Your task to perform on an android device: Open settings on Google Maps Image 0: 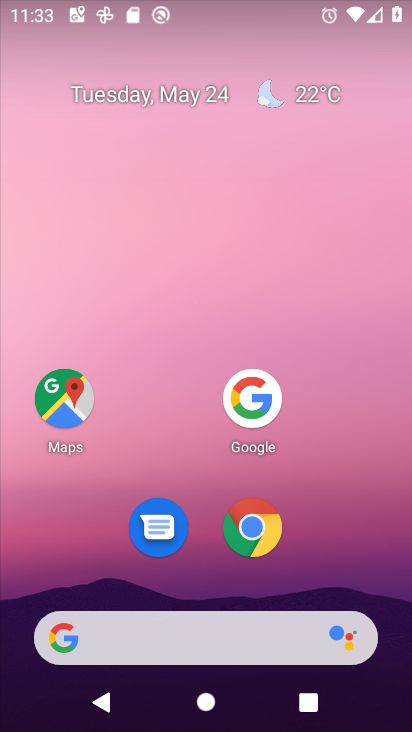
Step 0: press home button
Your task to perform on an android device: Open settings on Google Maps Image 1: 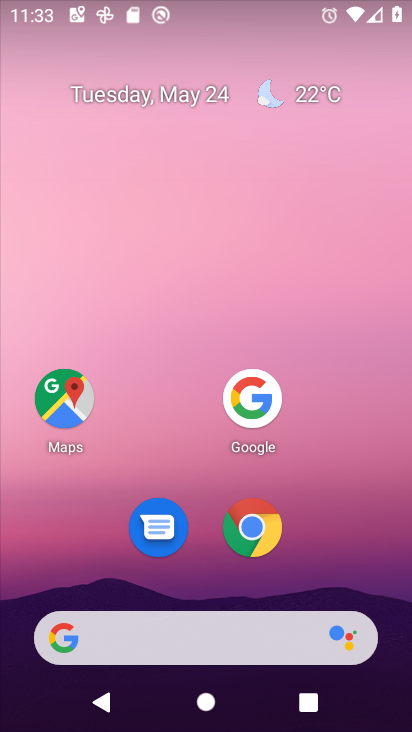
Step 1: click (200, 640)
Your task to perform on an android device: Open settings on Google Maps Image 2: 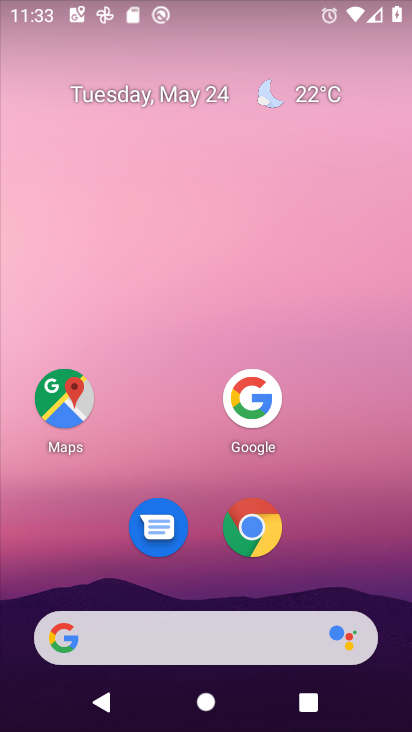
Step 2: click (66, 408)
Your task to perform on an android device: Open settings on Google Maps Image 3: 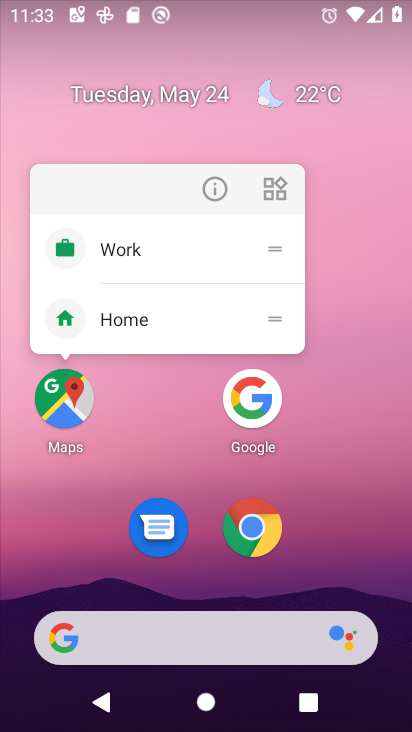
Step 3: click (66, 408)
Your task to perform on an android device: Open settings on Google Maps Image 4: 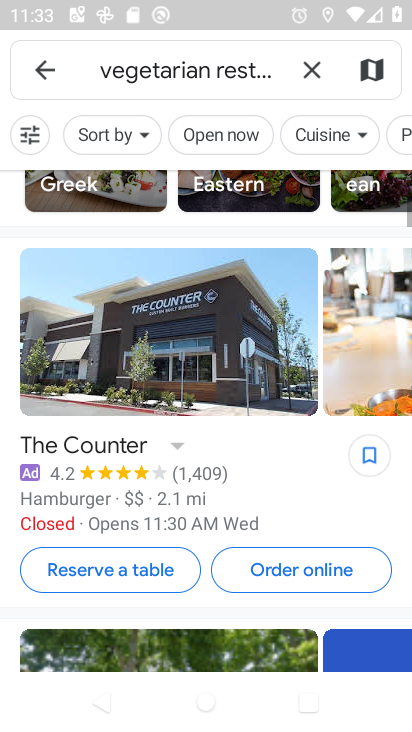
Step 4: click (35, 71)
Your task to perform on an android device: Open settings on Google Maps Image 5: 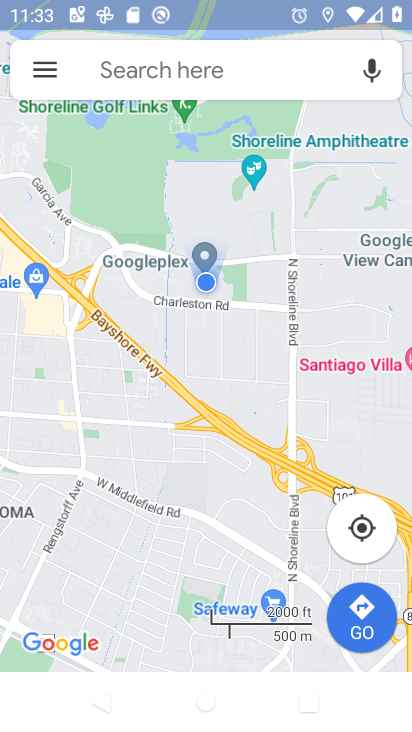
Step 5: click (46, 73)
Your task to perform on an android device: Open settings on Google Maps Image 6: 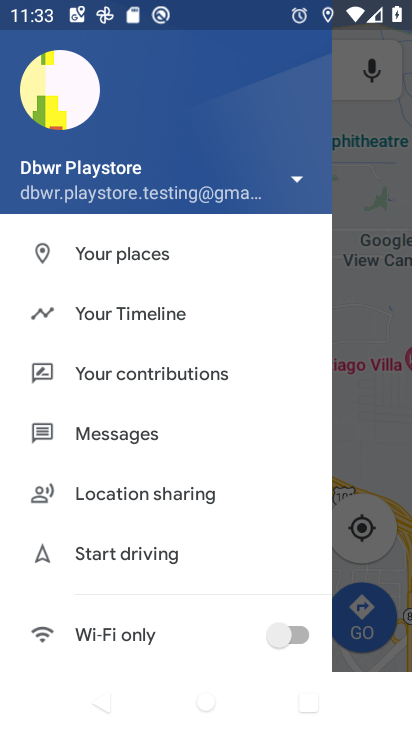
Step 6: drag from (204, 617) to (286, 144)
Your task to perform on an android device: Open settings on Google Maps Image 7: 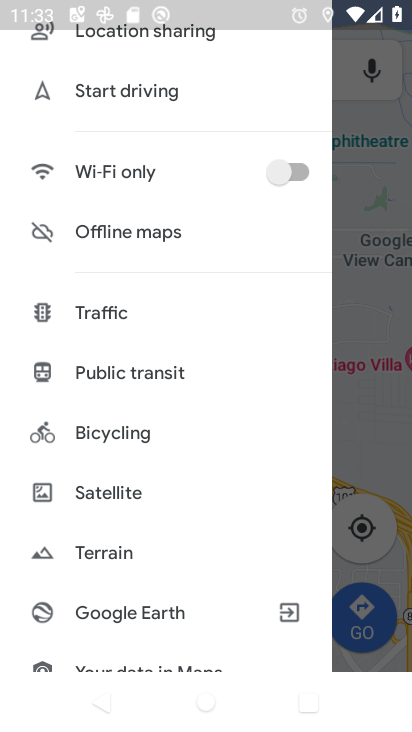
Step 7: drag from (188, 587) to (287, 193)
Your task to perform on an android device: Open settings on Google Maps Image 8: 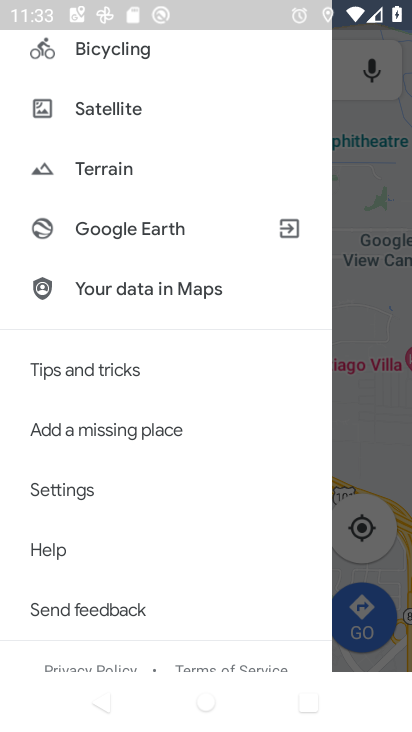
Step 8: click (70, 488)
Your task to perform on an android device: Open settings on Google Maps Image 9: 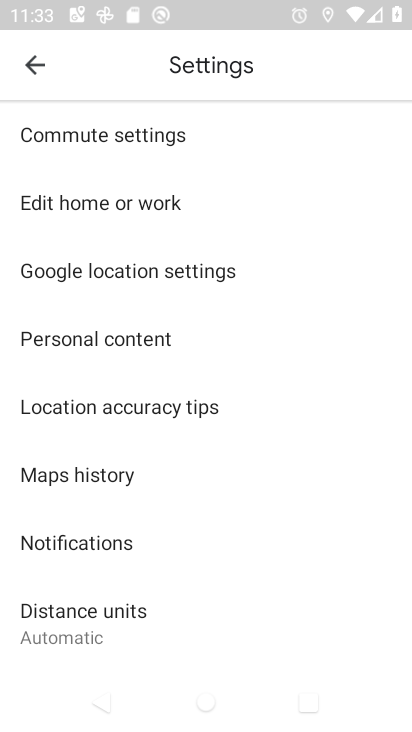
Step 9: task complete